Your task to perform on an android device: change notifications settings Image 0: 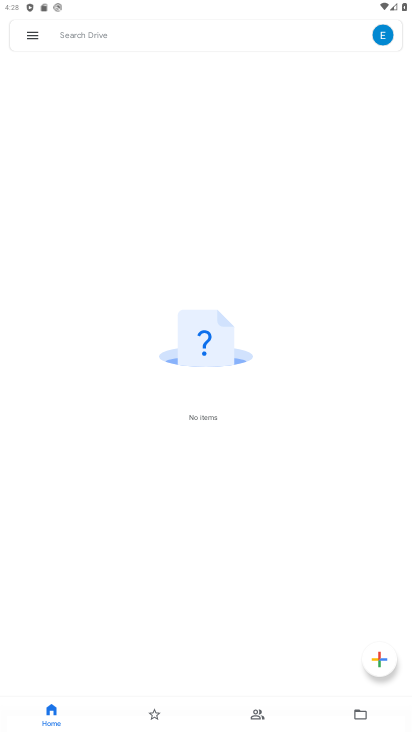
Step 0: press home button
Your task to perform on an android device: change notifications settings Image 1: 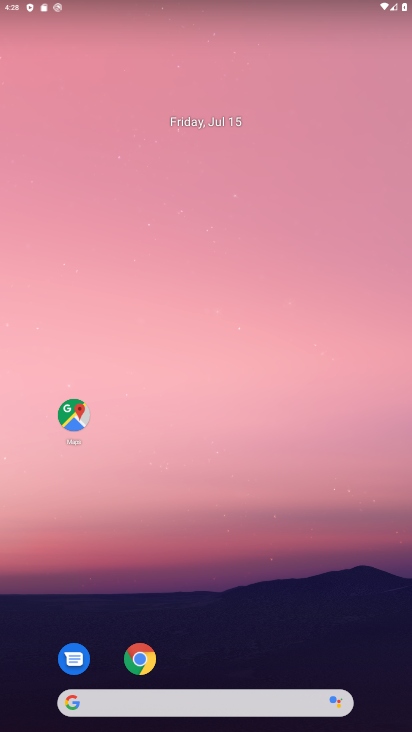
Step 1: drag from (210, 654) to (172, 129)
Your task to perform on an android device: change notifications settings Image 2: 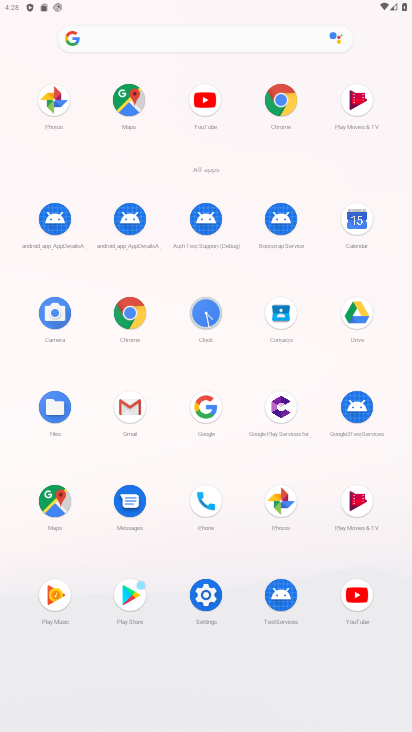
Step 2: click (204, 596)
Your task to perform on an android device: change notifications settings Image 3: 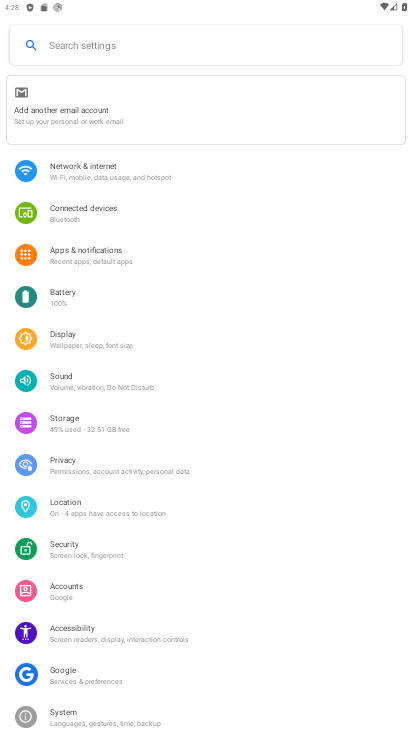
Step 3: click (87, 245)
Your task to perform on an android device: change notifications settings Image 4: 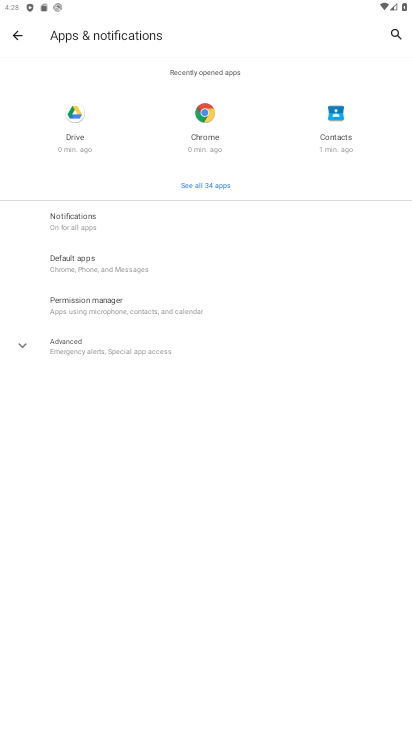
Step 4: task complete